Your task to perform on an android device: add a contact Image 0: 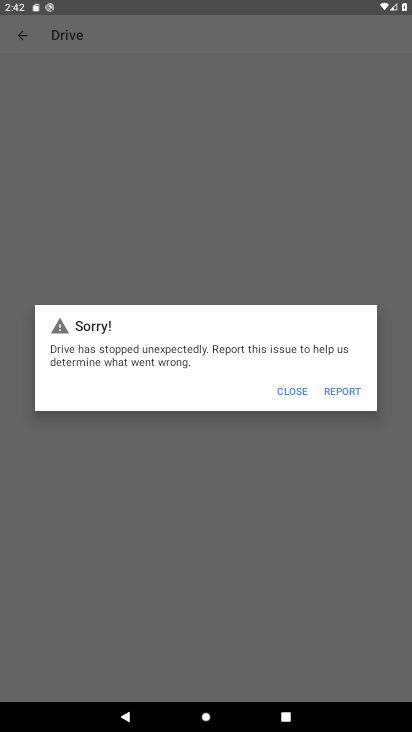
Step 0: press home button
Your task to perform on an android device: add a contact Image 1: 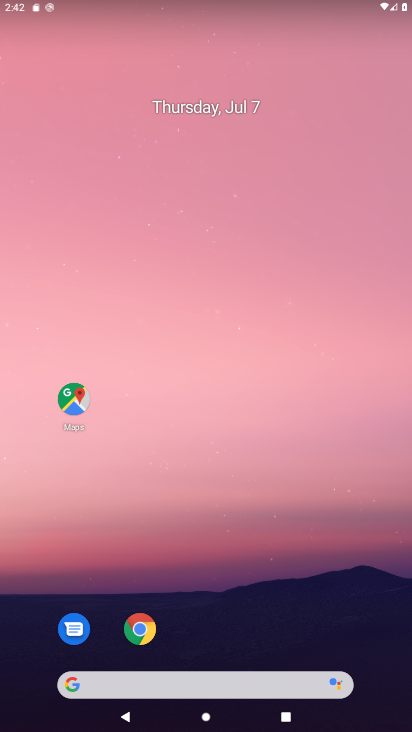
Step 1: drag from (237, 651) to (244, 328)
Your task to perform on an android device: add a contact Image 2: 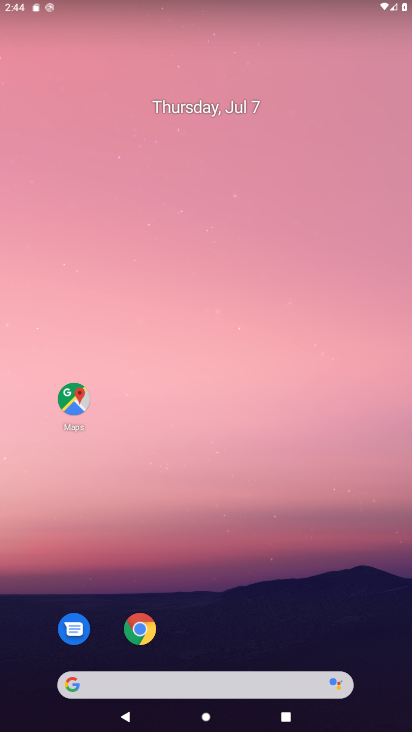
Step 2: drag from (237, 604) to (202, 62)
Your task to perform on an android device: add a contact Image 3: 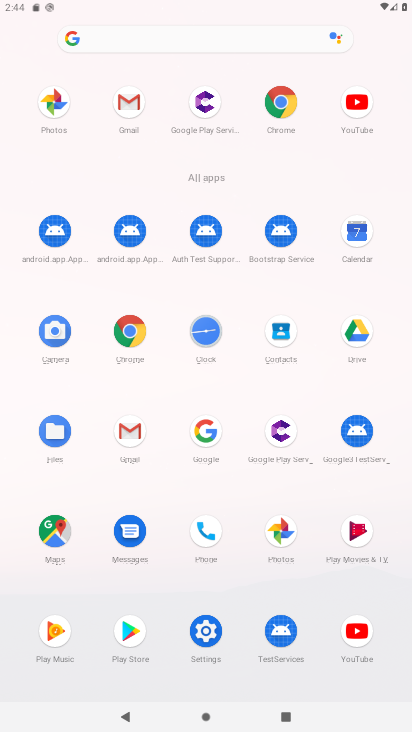
Step 3: click (268, 331)
Your task to perform on an android device: add a contact Image 4: 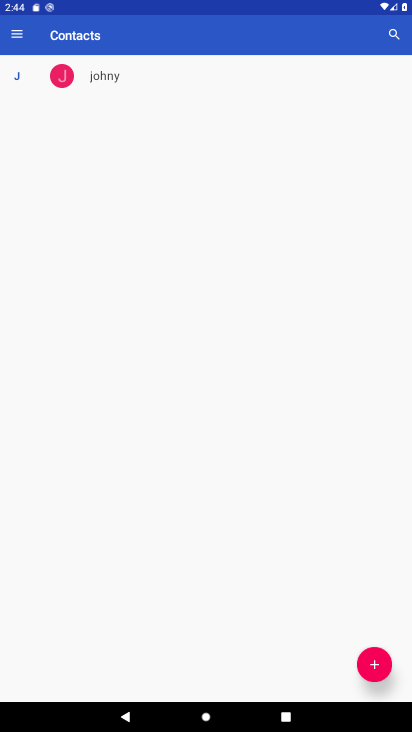
Step 4: click (384, 675)
Your task to perform on an android device: add a contact Image 5: 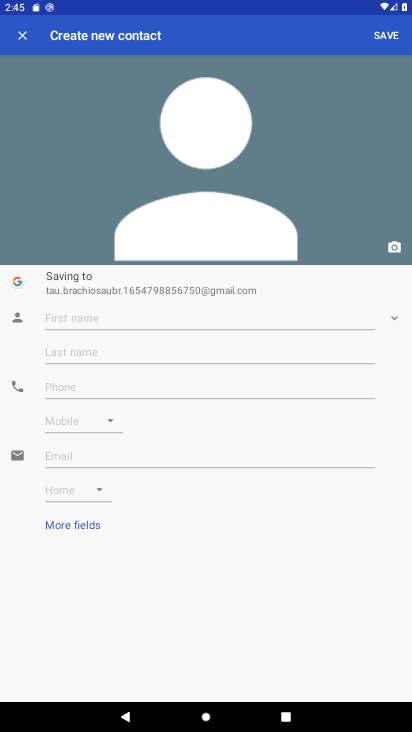
Step 5: click (167, 319)
Your task to perform on an android device: add a contact Image 6: 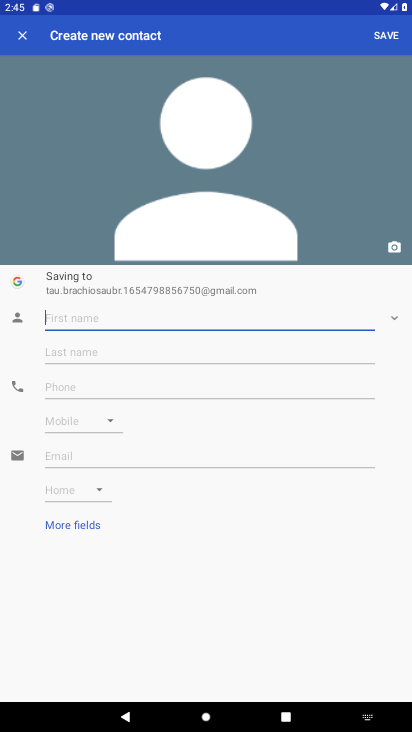
Step 6: type "sgggs"
Your task to perform on an android device: add a contact Image 7: 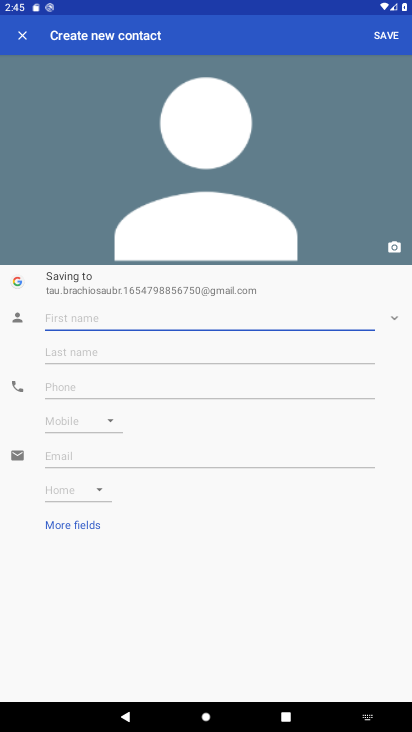
Step 7: click (116, 384)
Your task to perform on an android device: add a contact Image 8: 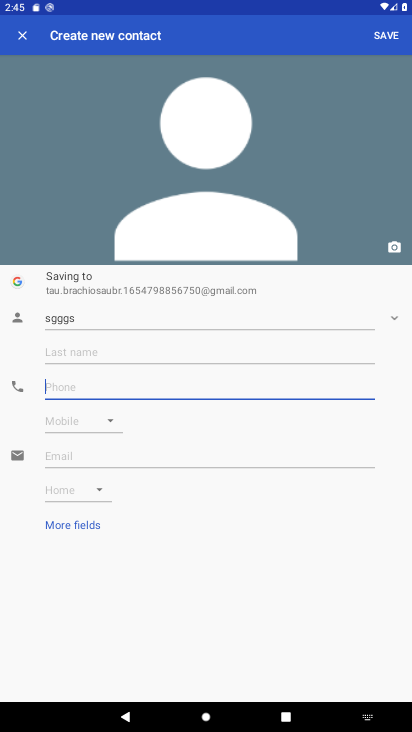
Step 8: type "4444444444"
Your task to perform on an android device: add a contact Image 9: 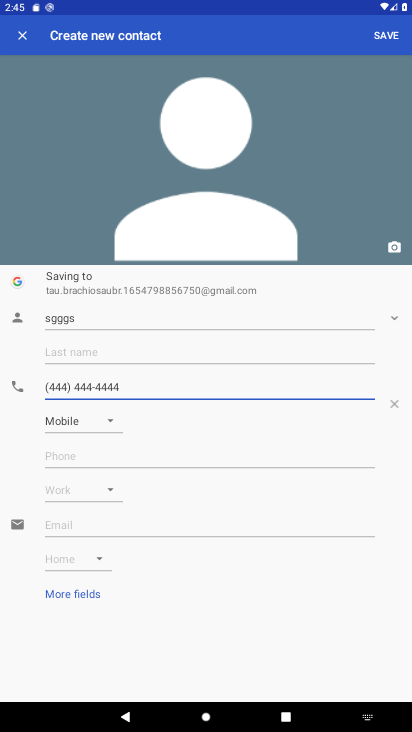
Step 9: click (379, 33)
Your task to perform on an android device: add a contact Image 10: 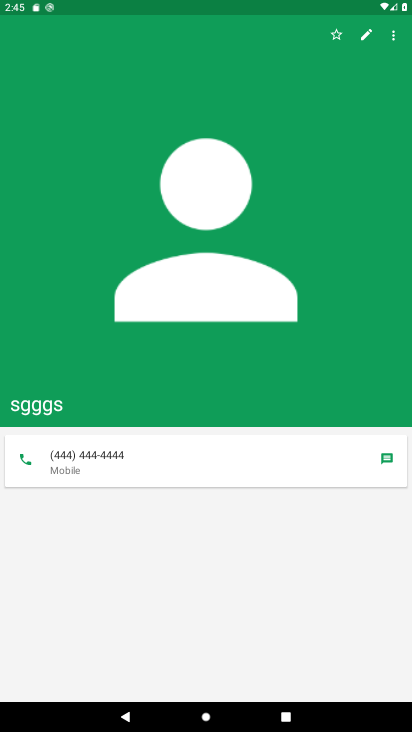
Step 10: task complete